Your task to perform on an android device: Show the shopping cart on bestbuy.com. Add usb-a to usb-b to the cart on bestbuy.com, then select checkout. Image 0: 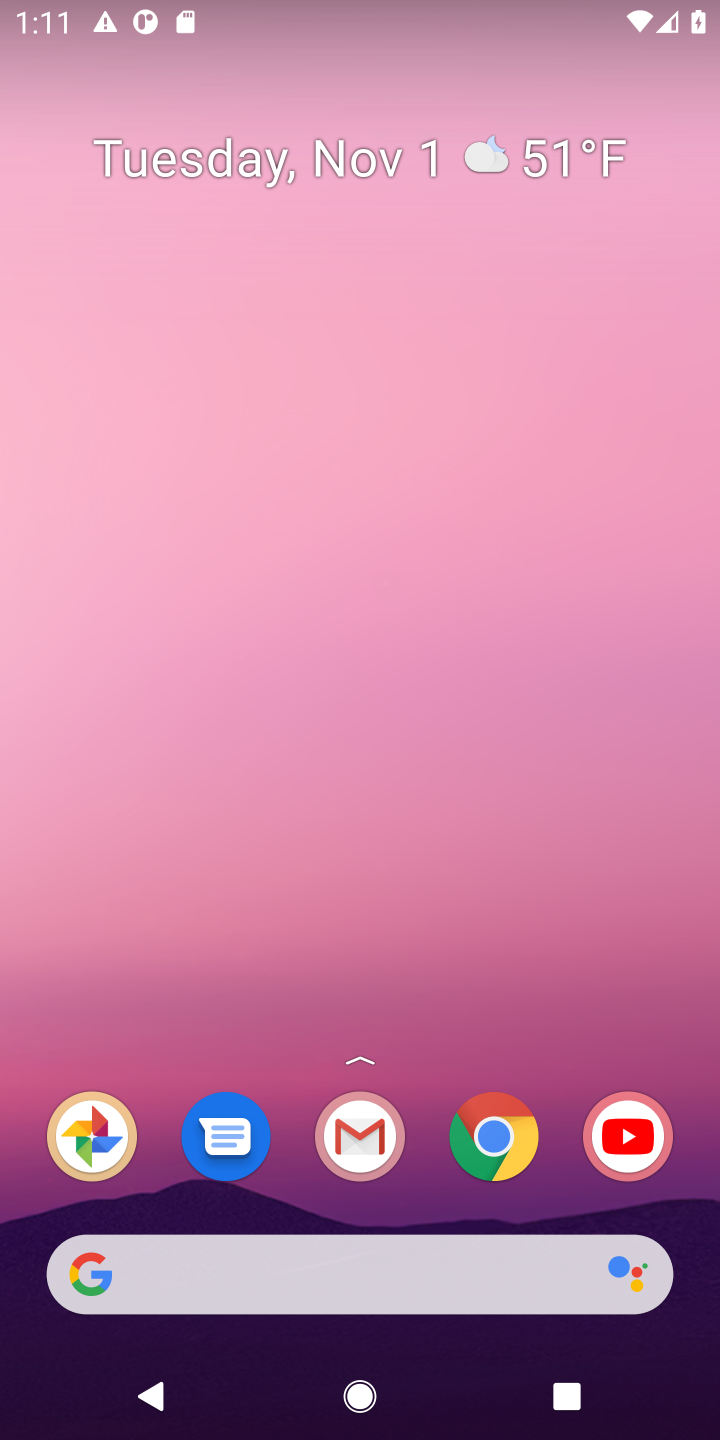
Step 0: press home button
Your task to perform on an android device: Show the shopping cart on bestbuy.com. Add usb-a to usb-b to the cart on bestbuy.com, then select checkout. Image 1: 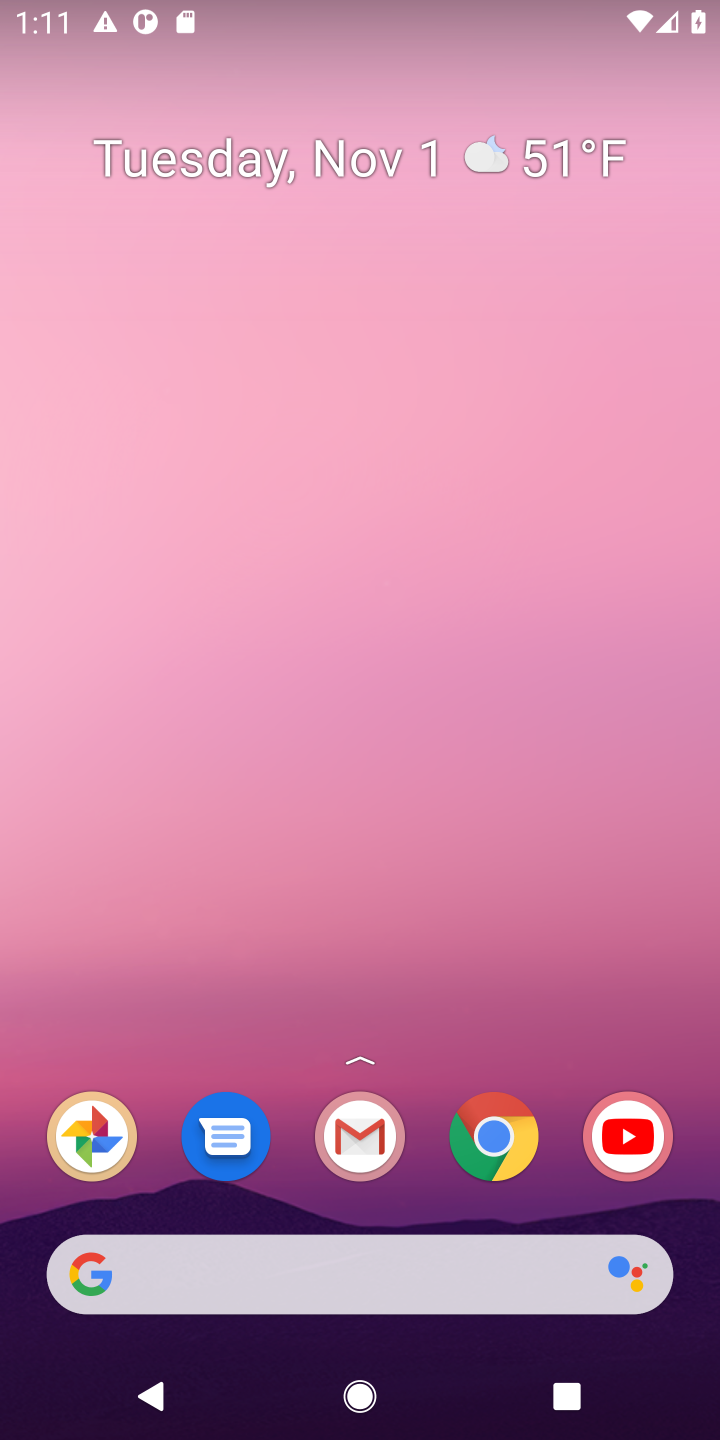
Step 1: click (127, 1267)
Your task to perform on an android device: Show the shopping cart on bestbuy.com. Add usb-a to usb-b to the cart on bestbuy.com, then select checkout. Image 2: 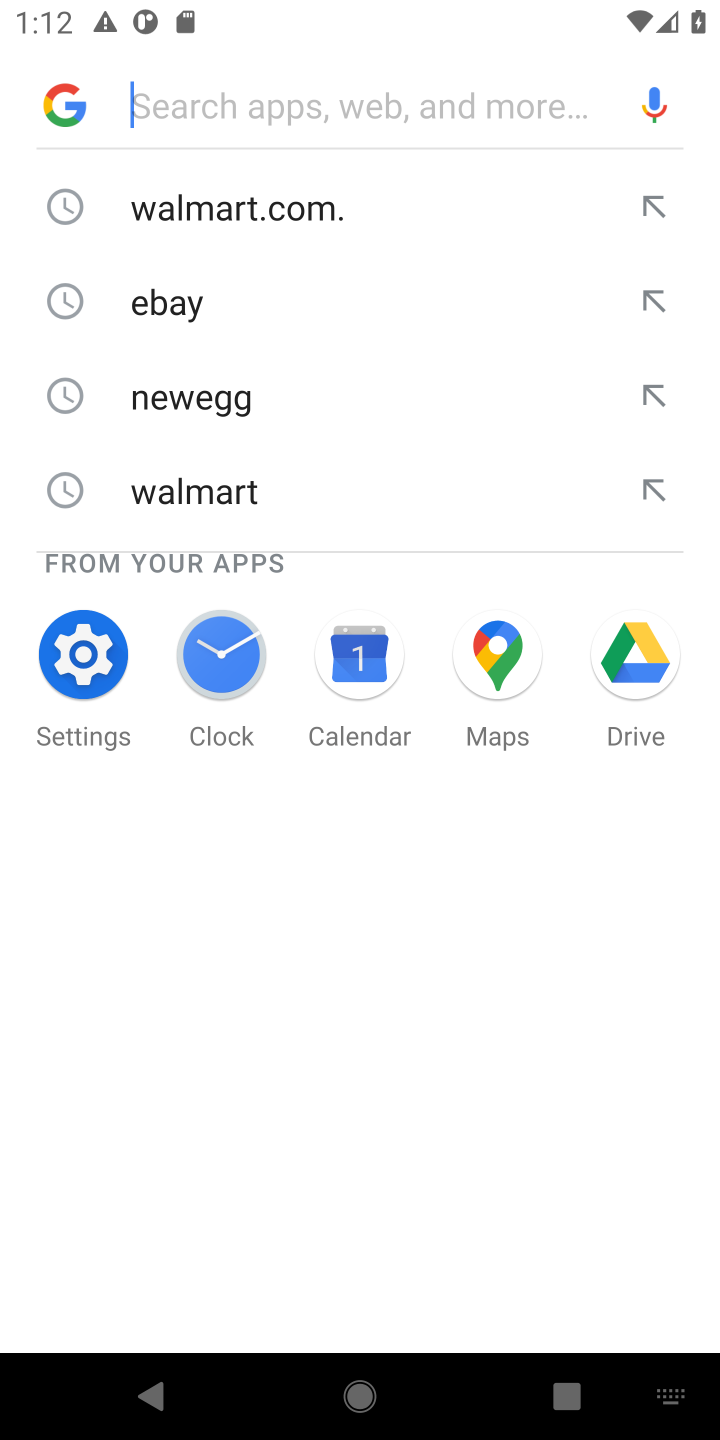
Step 2: type "bestbuy.com"
Your task to perform on an android device: Show the shopping cart on bestbuy.com. Add usb-a to usb-b to the cart on bestbuy.com, then select checkout. Image 3: 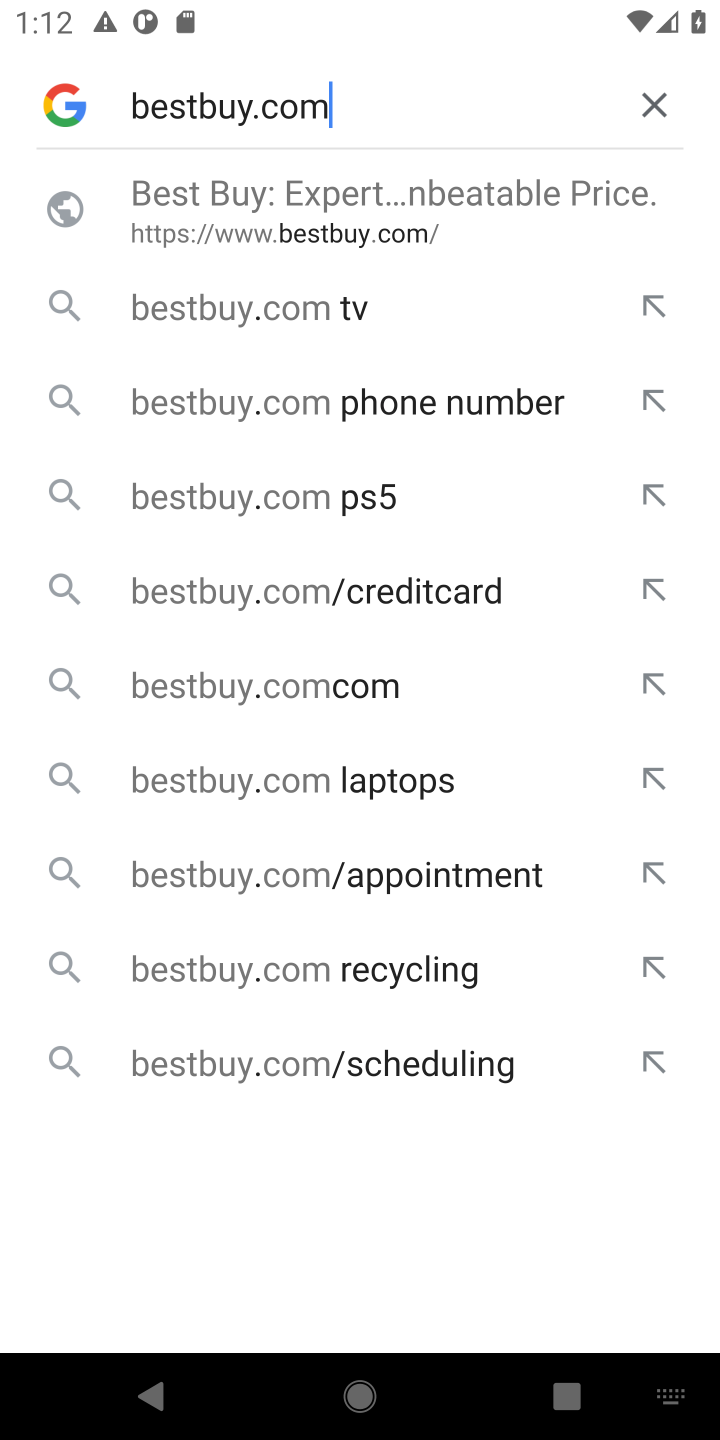
Step 3: press enter
Your task to perform on an android device: Show the shopping cart on bestbuy.com. Add usb-a to usb-b to the cart on bestbuy.com, then select checkout. Image 4: 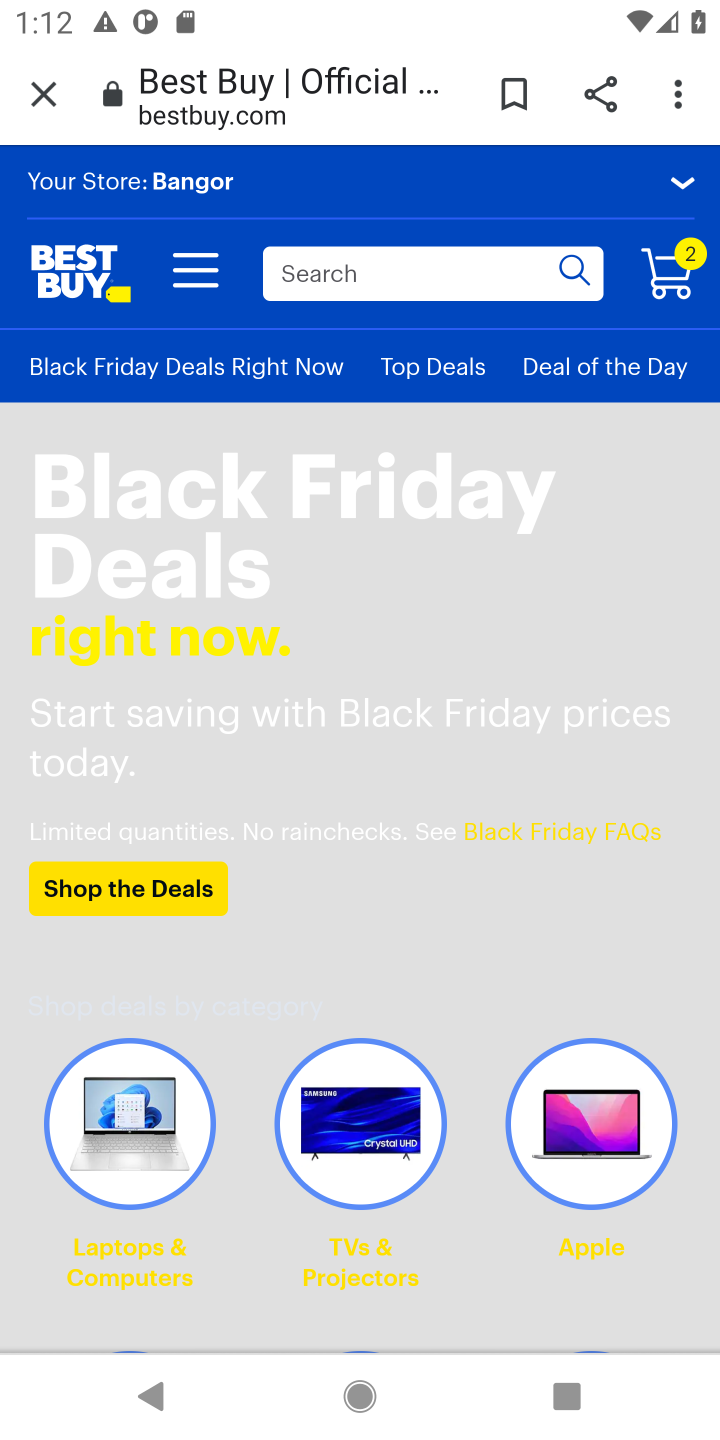
Step 4: click (685, 257)
Your task to perform on an android device: Show the shopping cart on bestbuy.com. Add usb-a to usb-b to the cart on bestbuy.com, then select checkout. Image 5: 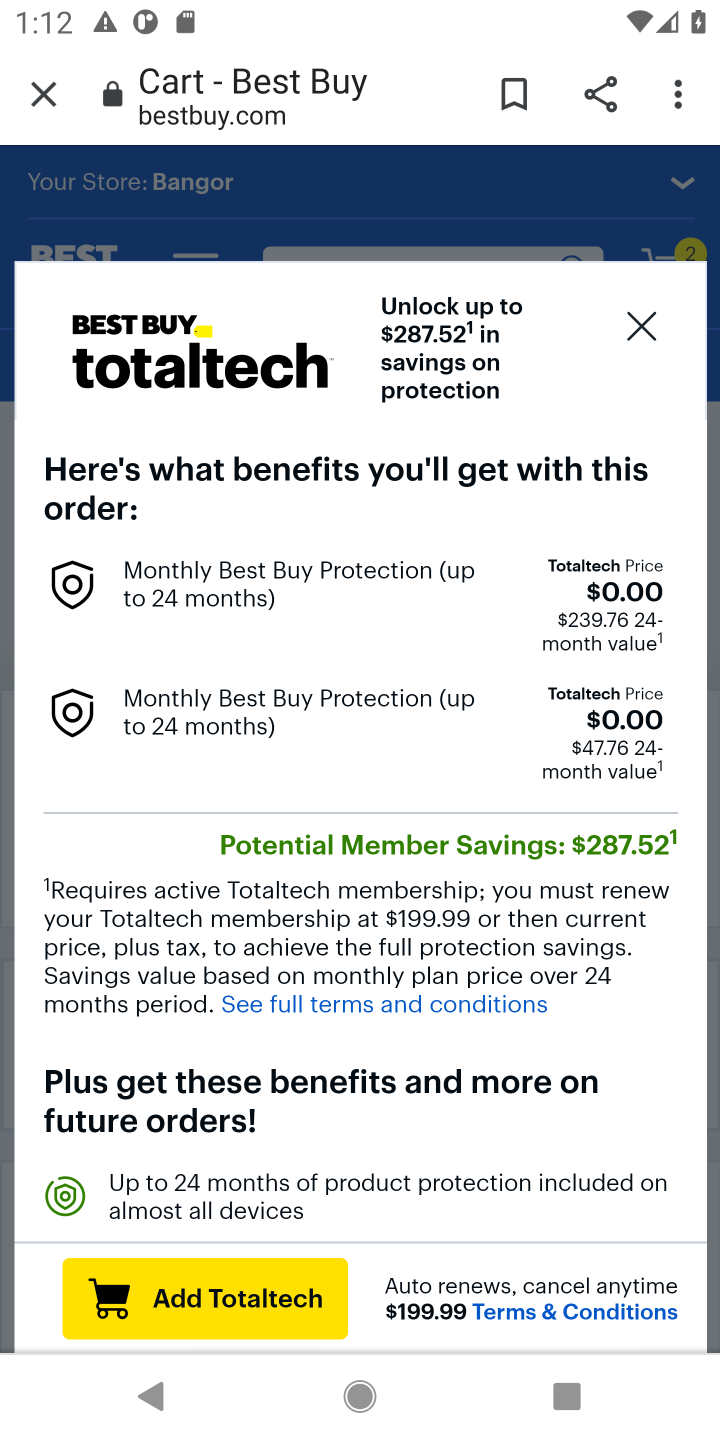
Step 5: click (631, 326)
Your task to perform on an android device: Show the shopping cart on bestbuy.com. Add usb-a to usb-b to the cart on bestbuy.com, then select checkout. Image 6: 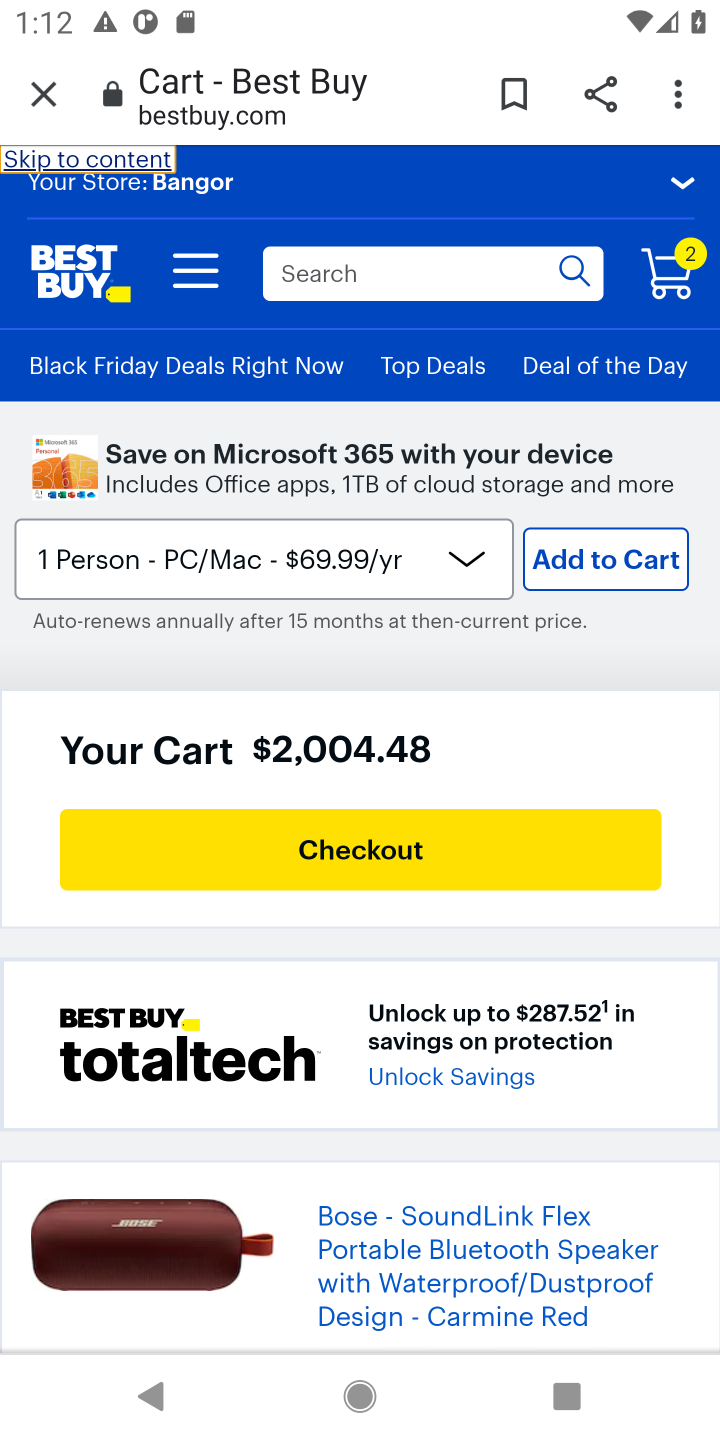
Step 6: click (312, 273)
Your task to perform on an android device: Show the shopping cart on bestbuy.com. Add usb-a to usb-b to the cart on bestbuy.com, then select checkout. Image 7: 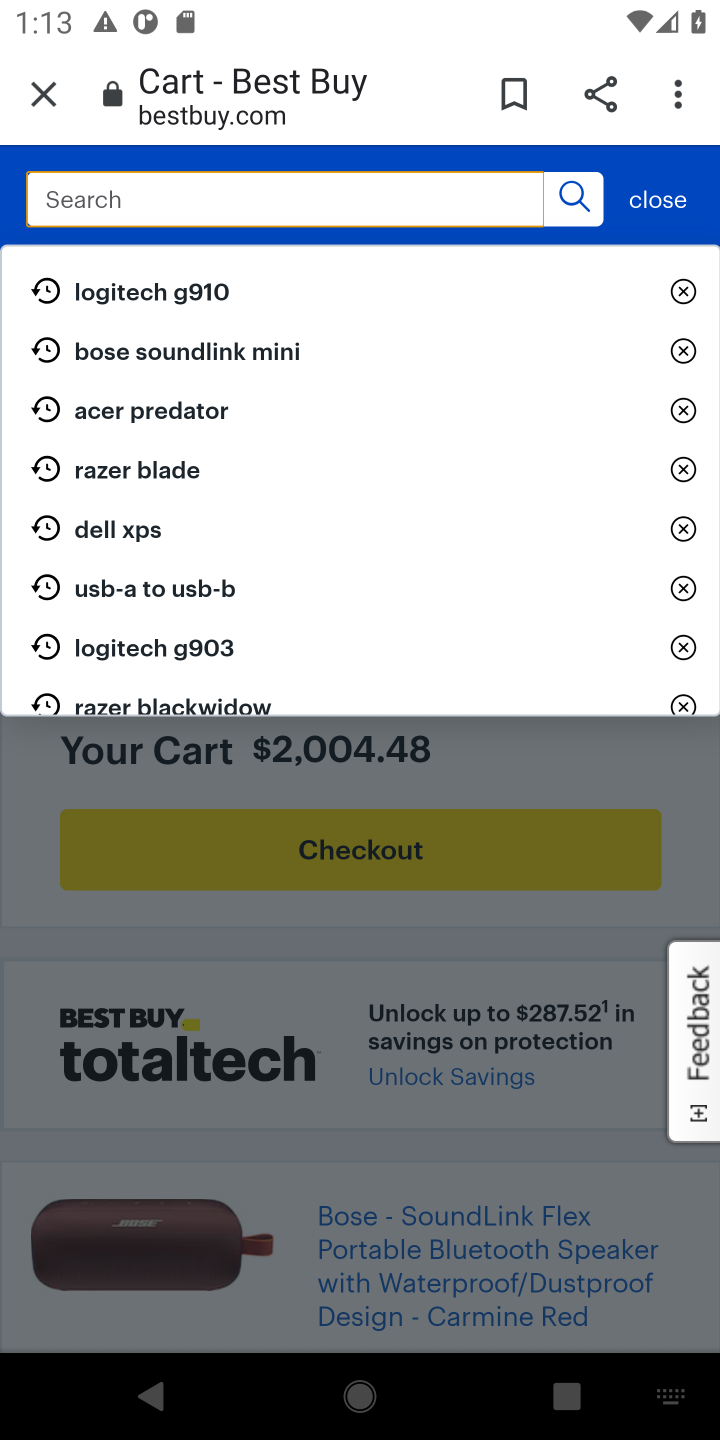
Step 7: type "usb-a to usb-b"
Your task to perform on an android device: Show the shopping cart on bestbuy.com. Add usb-a to usb-b to the cart on bestbuy.com, then select checkout. Image 8: 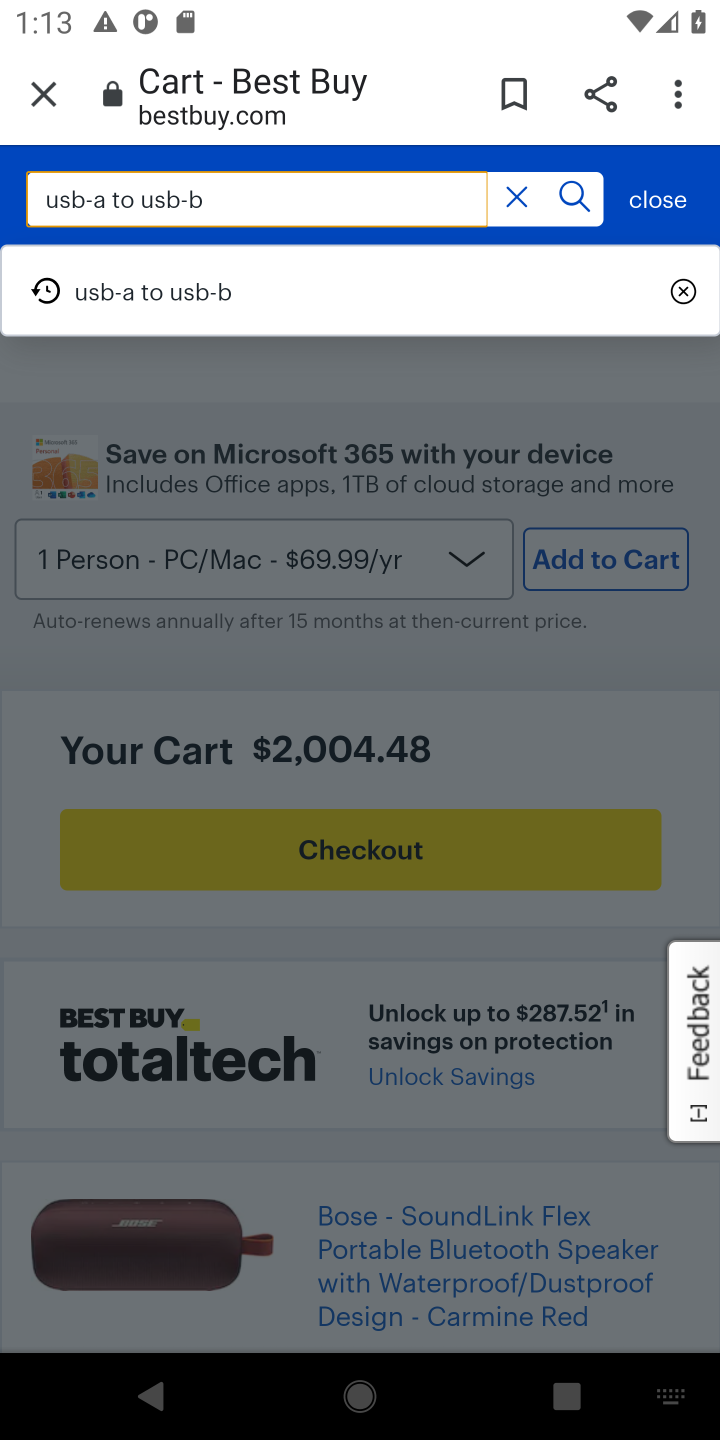
Step 8: click (574, 183)
Your task to perform on an android device: Show the shopping cart on bestbuy.com. Add usb-a to usb-b to the cart on bestbuy.com, then select checkout. Image 9: 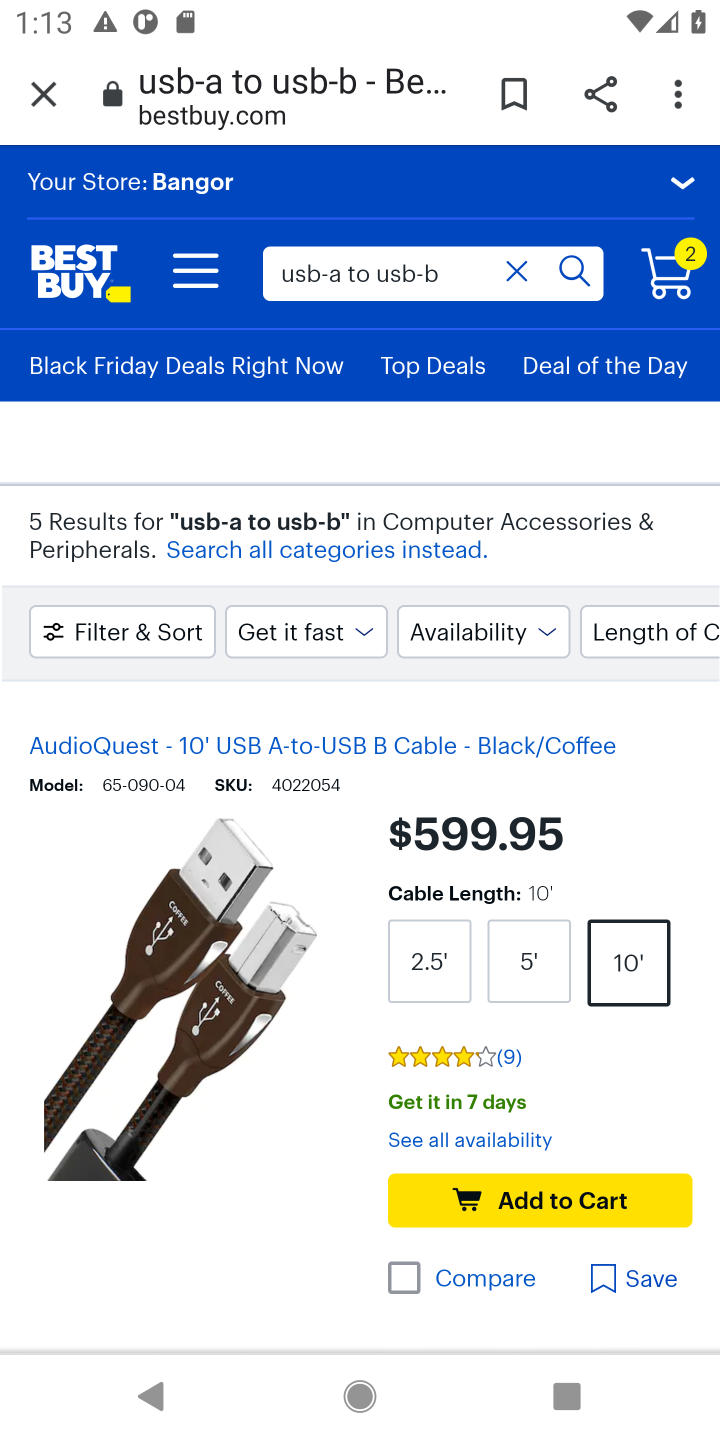
Step 9: click (531, 1197)
Your task to perform on an android device: Show the shopping cart on bestbuy.com. Add usb-a to usb-b to the cart on bestbuy.com, then select checkout. Image 10: 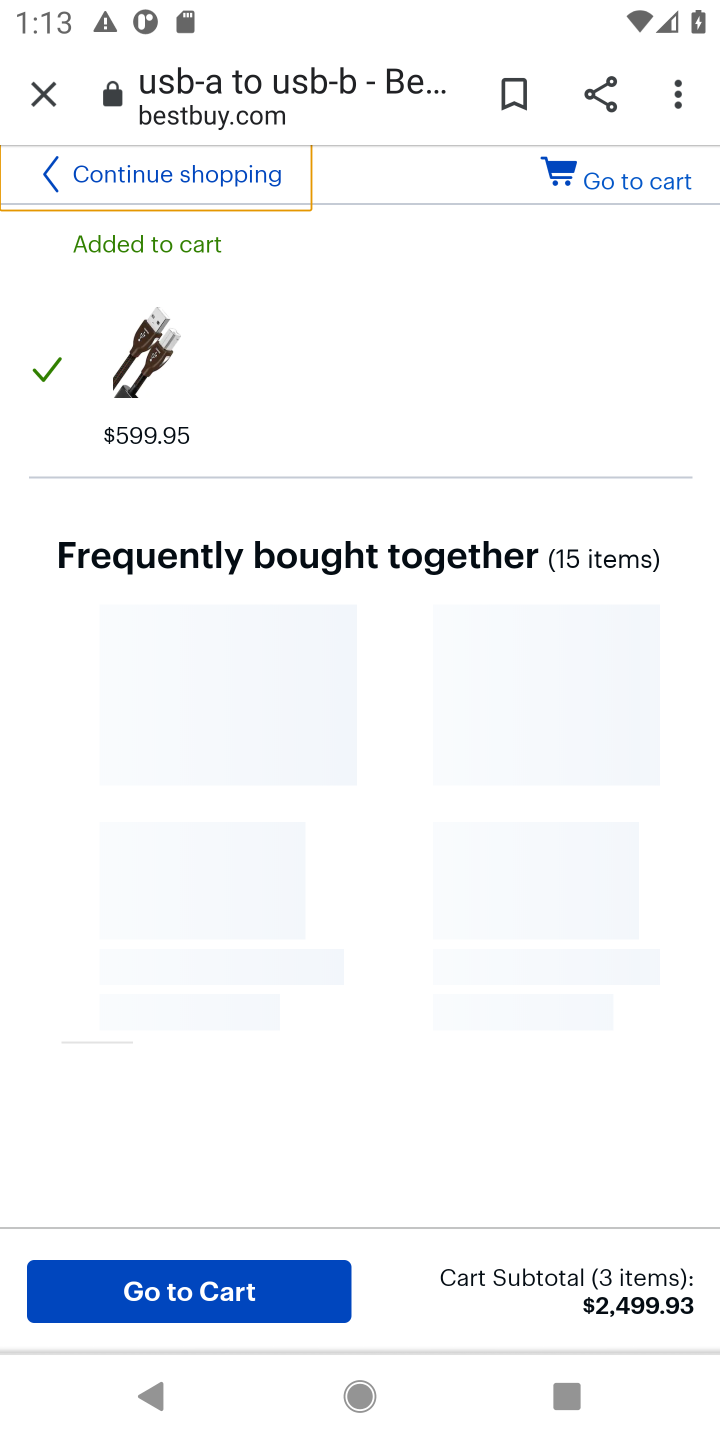
Step 10: click (163, 1294)
Your task to perform on an android device: Show the shopping cart on bestbuy.com. Add usb-a to usb-b to the cart on bestbuy.com, then select checkout. Image 11: 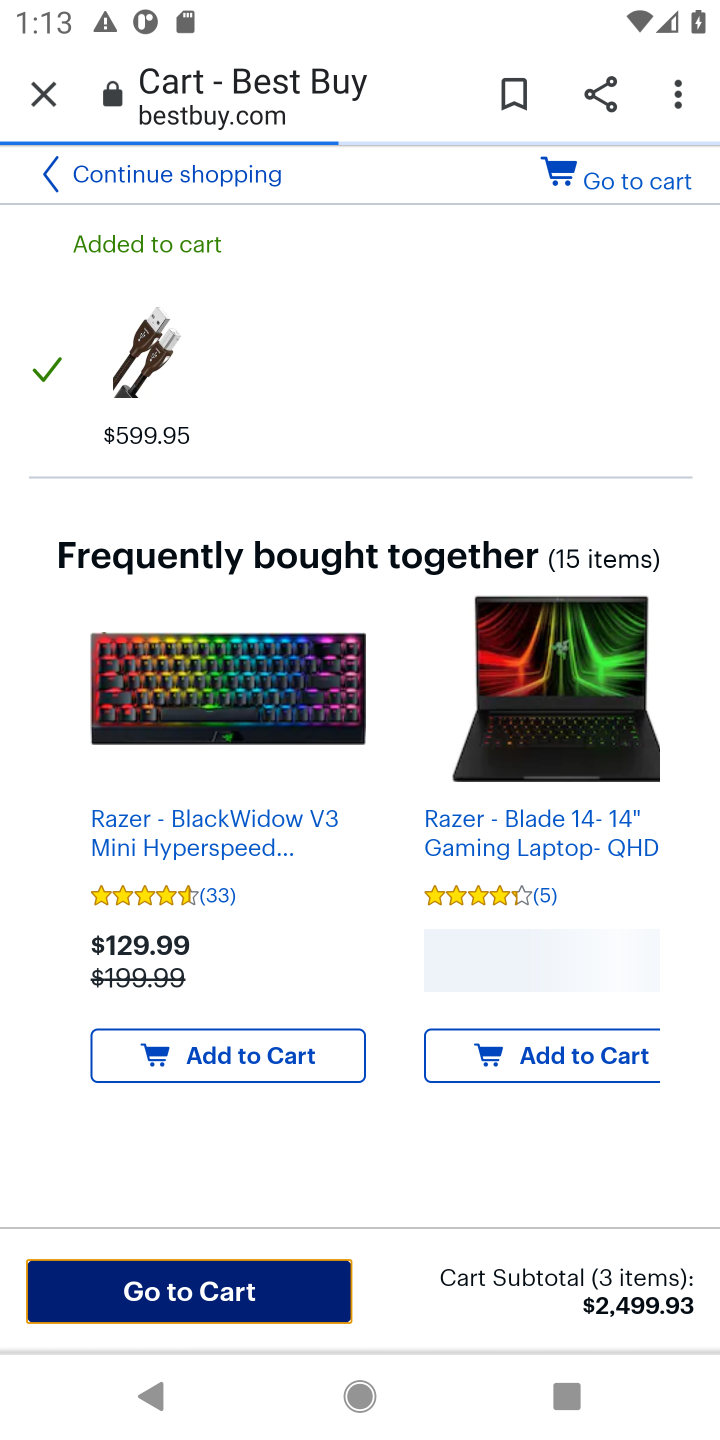
Step 11: click (163, 1294)
Your task to perform on an android device: Show the shopping cart on bestbuy.com. Add usb-a to usb-b to the cart on bestbuy.com, then select checkout. Image 12: 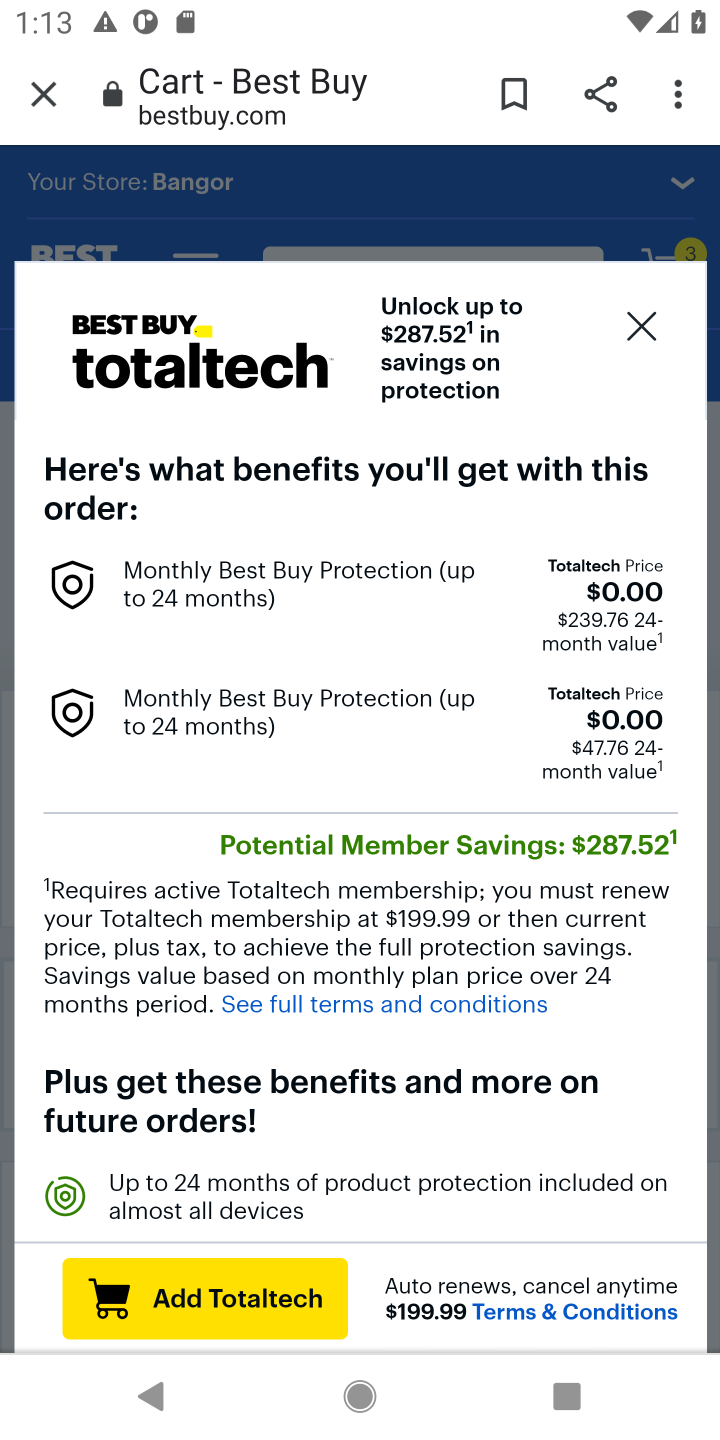
Step 12: click (630, 307)
Your task to perform on an android device: Show the shopping cart on bestbuy.com. Add usb-a to usb-b to the cart on bestbuy.com, then select checkout. Image 13: 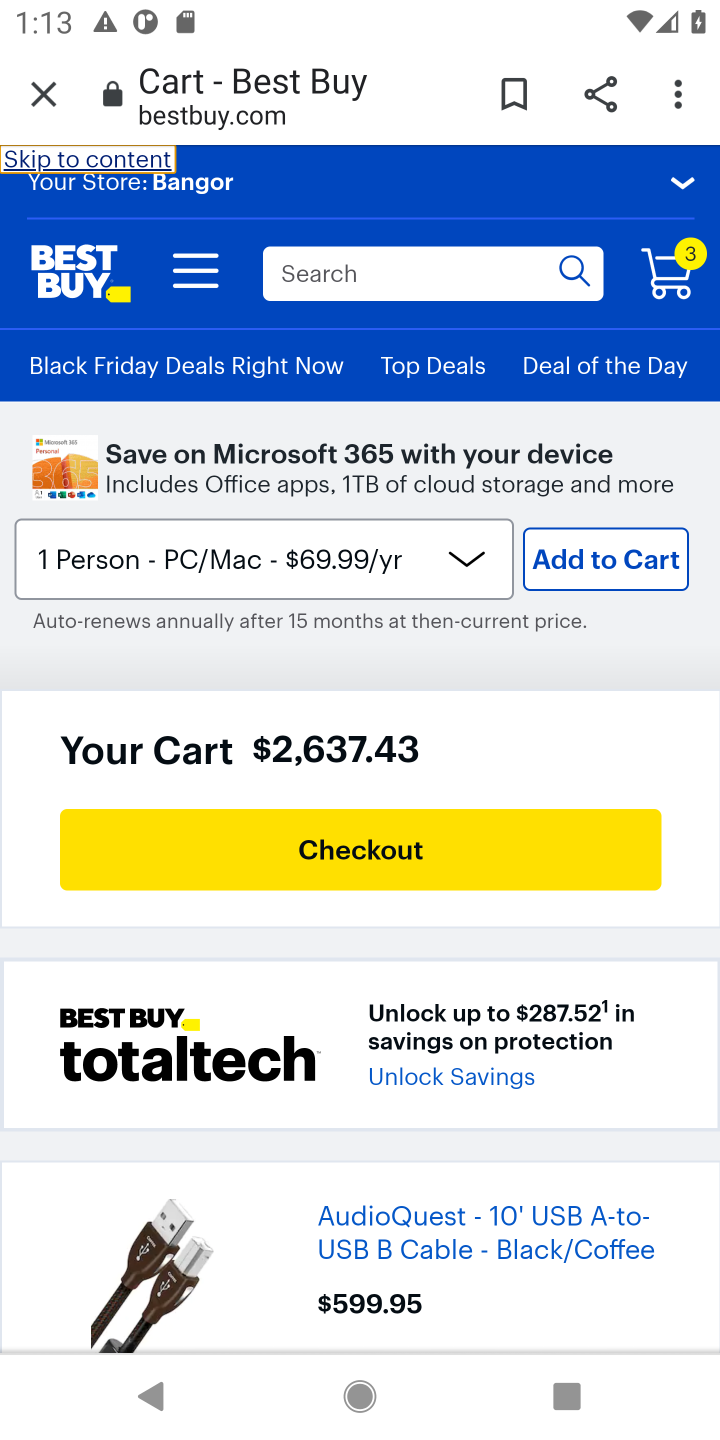
Step 13: click (369, 855)
Your task to perform on an android device: Show the shopping cart on bestbuy.com. Add usb-a to usb-b to the cart on bestbuy.com, then select checkout. Image 14: 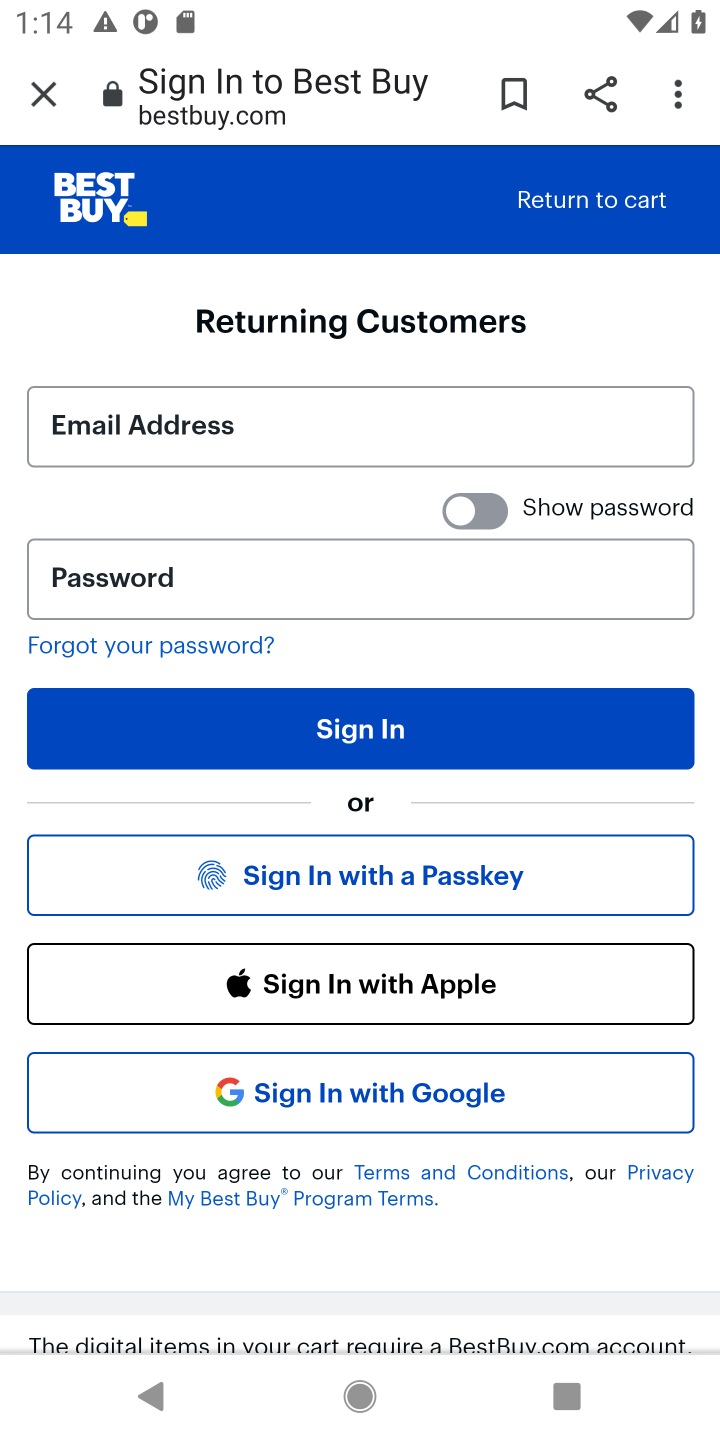
Step 14: task complete